Your task to perform on an android device: create a new album in the google photos Image 0: 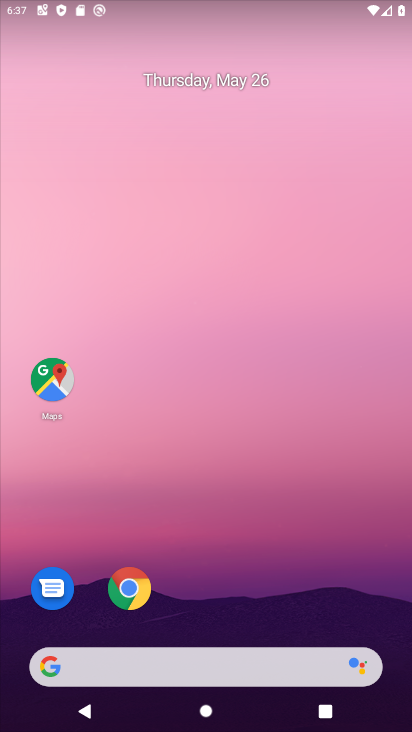
Step 0: drag from (362, 616) to (298, 26)
Your task to perform on an android device: create a new album in the google photos Image 1: 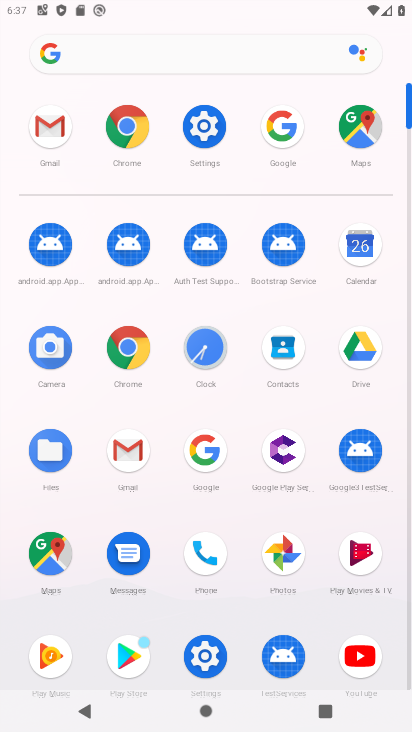
Step 1: click (289, 536)
Your task to perform on an android device: create a new album in the google photos Image 2: 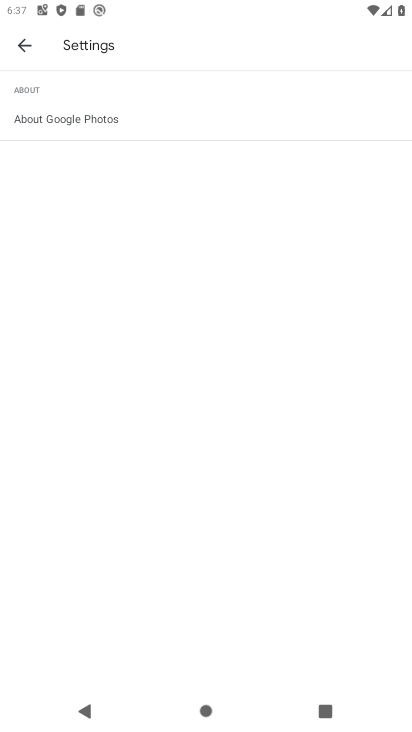
Step 2: press back button
Your task to perform on an android device: create a new album in the google photos Image 3: 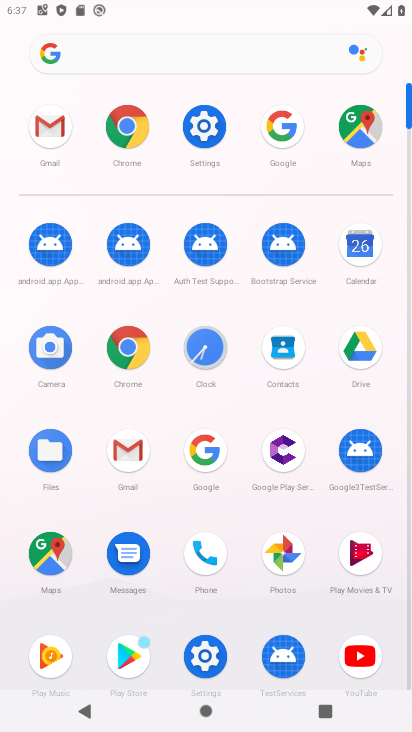
Step 3: click (271, 565)
Your task to perform on an android device: create a new album in the google photos Image 4: 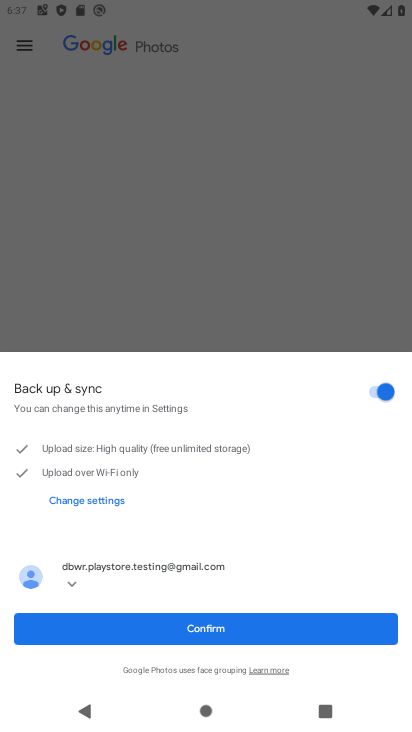
Step 4: click (240, 638)
Your task to perform on an android device: create a new album in the google photos Image 5: 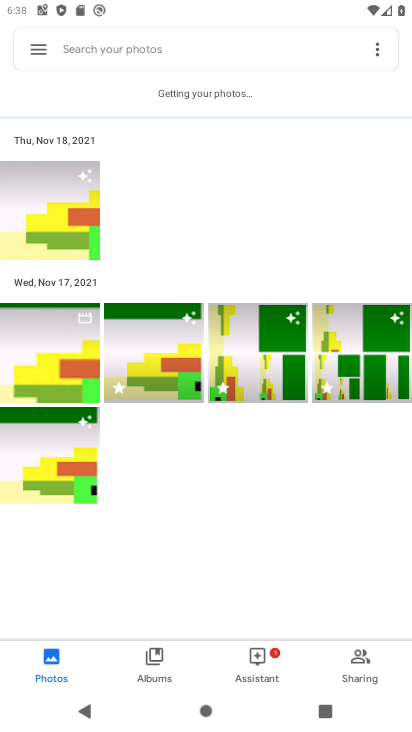
Step 5: click (29, 225)
Your task to perform on an android device: create a new album in the google photos Image 6: 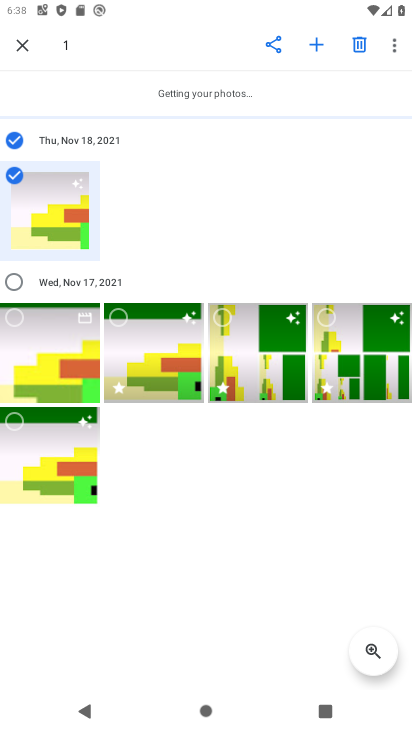
Step 6: click (306, 49)
Your task to perform on an android device: create a new album in the google photos Image 7: 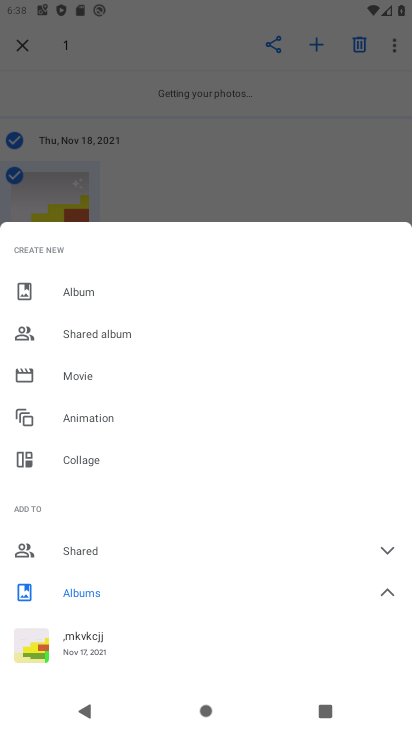
Step 7: click (121, 285)
Your task to perform on an android device: create a new album in the google photos Image 8: 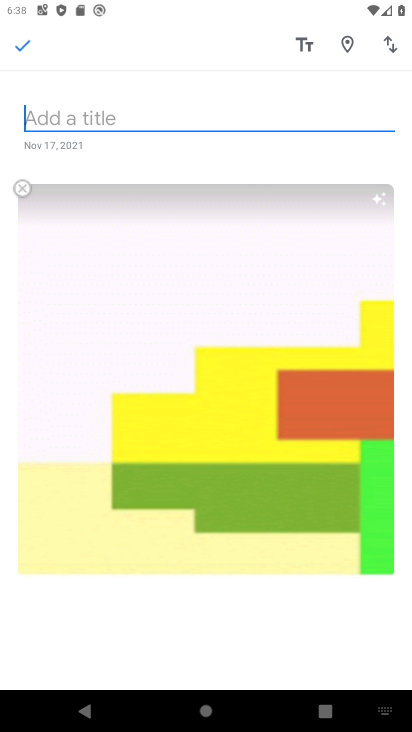
Step 8: type "Mh"
Your task to perform on an android device: create a new album in the google photos Image 9: 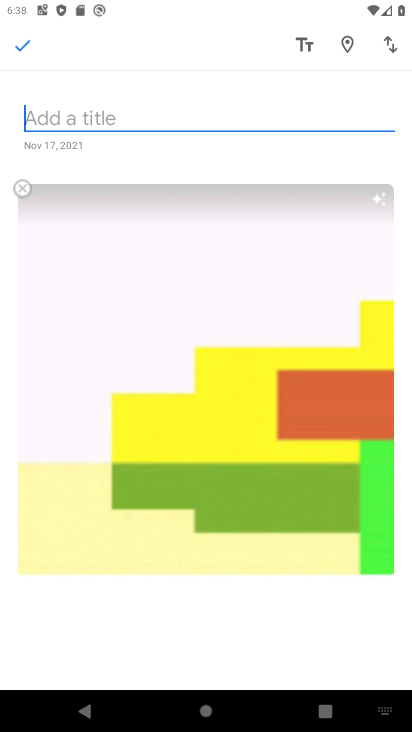
Step 9: click (24, 49)
Your task to perform on an android device: create a new album in the google photos Image 10: 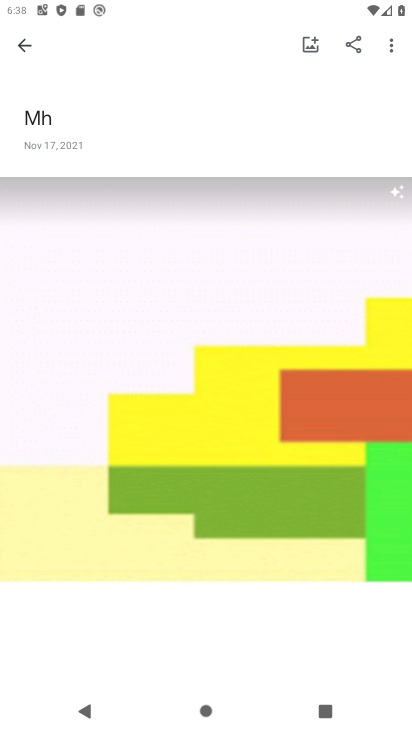
Step 10: task complete